Your task to perform on an android device: Open my contact list Image 0: 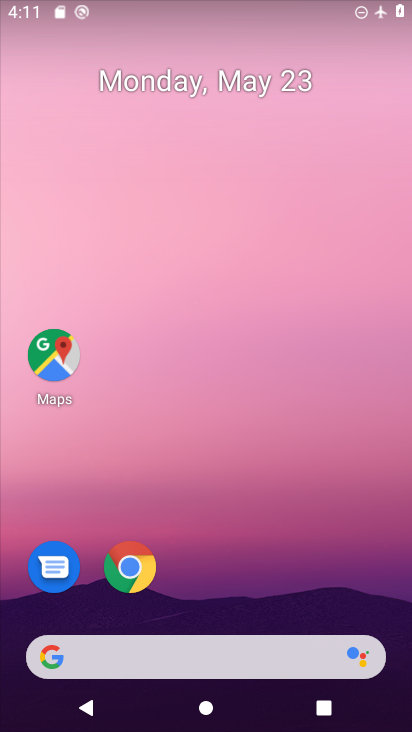
Step 0: drag from (377, 602) to (336, 12)
Your task to perform on an android device: Open my contact list Image 1: 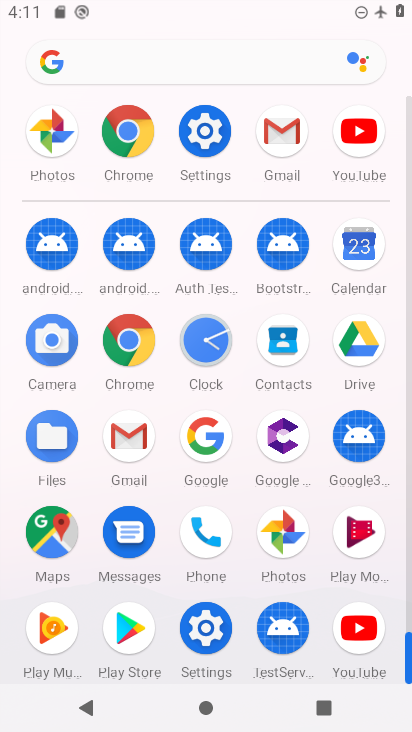
Step 1: click (281, 341)
Your task to perform on an android device: Open my contact list Image 2: 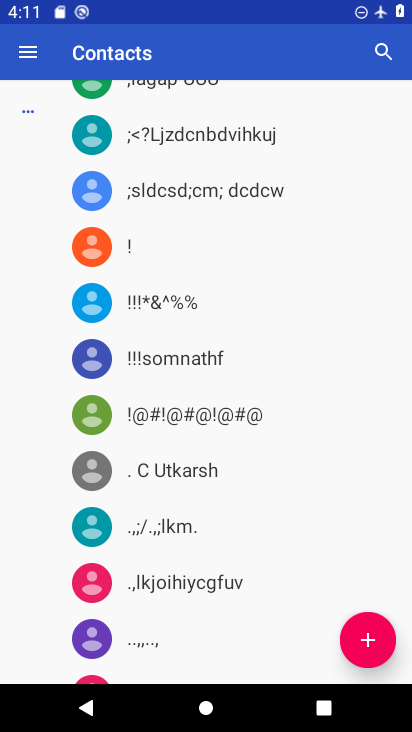
Step 2: task complete